Your task to perform on an android device: What's the weather going to be tomorrow? Image 0: 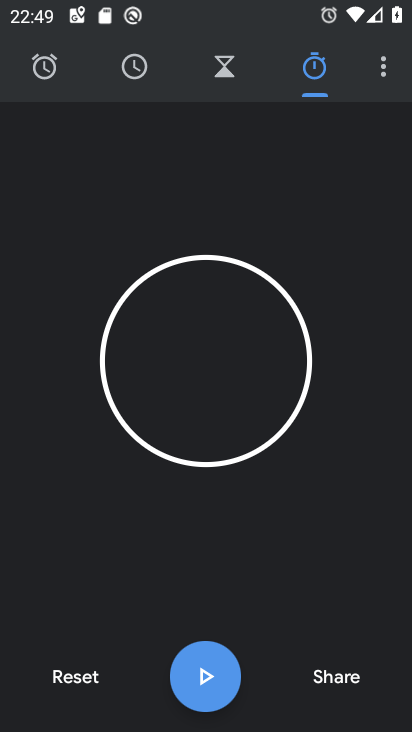
Step 0: press home button
Your task to perform on an android device: What's the weather going to be tomorrow? Image 1: 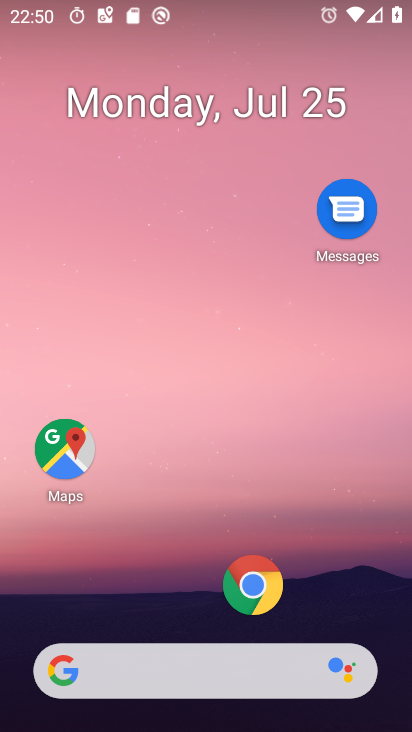
Step 1: click (129, 675)
Your task to perform on an android device: What's the weather going to be tomorrow? Image 2: 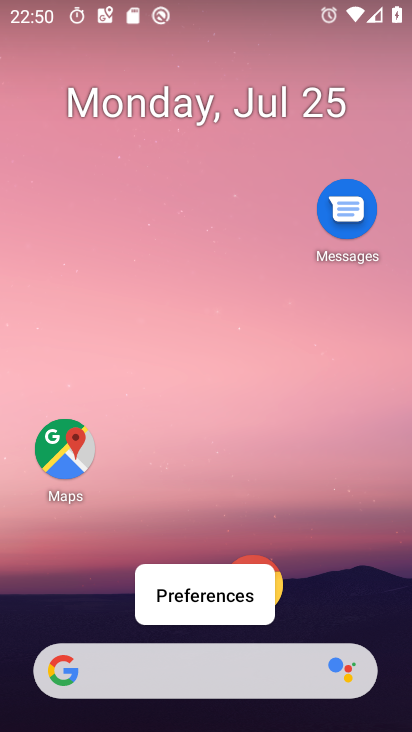
Step 2: click (128, 657)
Your task to perform on an android device: What's the weather going to be tomorrow? Image 3: 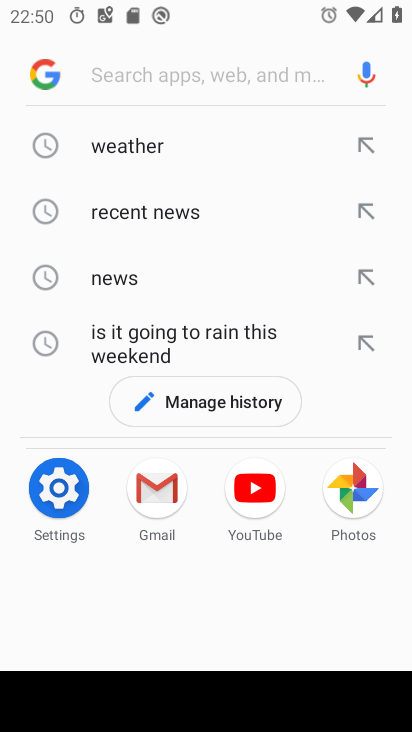
Step 3: click (127, 142)
Your task to perform on an android device: What's the weather going to be tomorrow? Image 4: 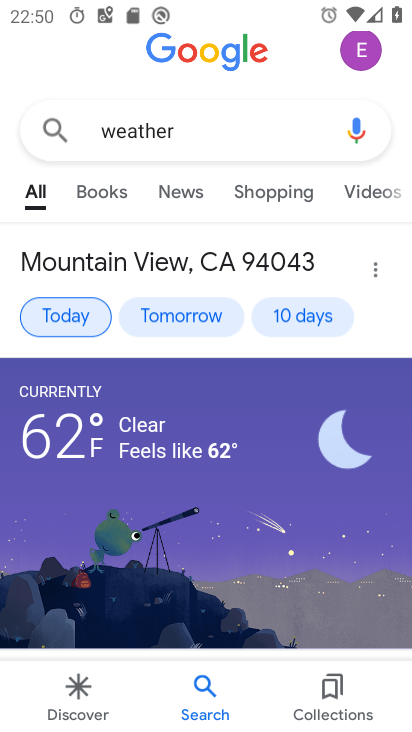
Step 4: click (191, 318)
Your task to perform on an android device: What's the weather going to be tomorrow? Image 5: 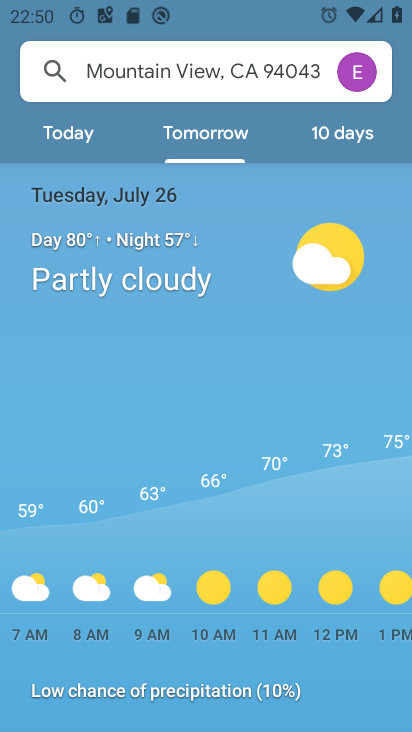
Step 5: task complete